Your task to perform on an android device: choose inbox layout in the gmail app Image 0: 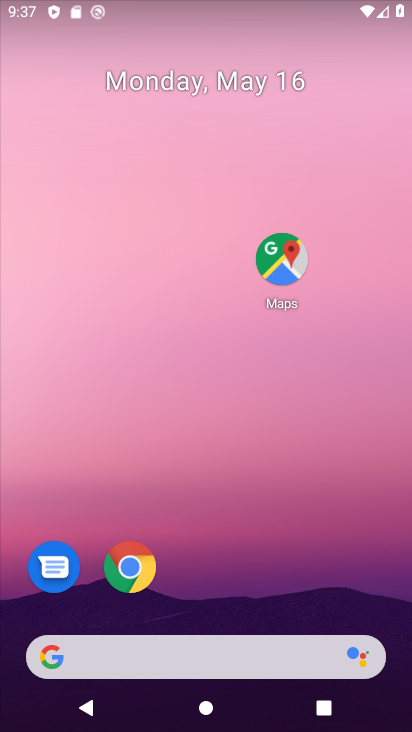
Step 0: drag from (304, 558) to (253, 63)
Your task to perform on an android device: choose inbox layout in the gmail app Image 1: 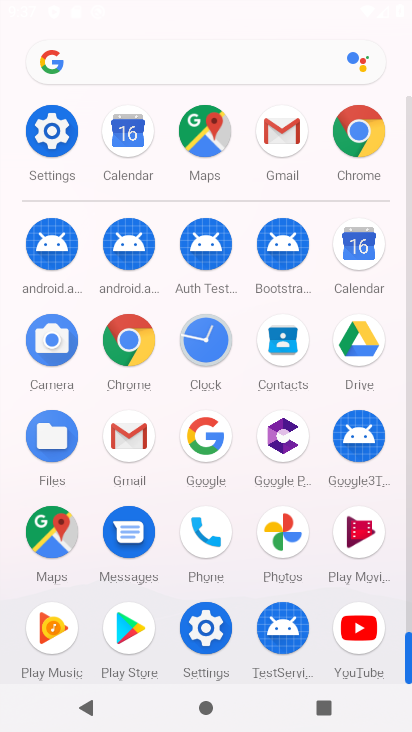
Step 1: click (288, 134)
Your task to perform on an android device: choose inbox layout in the gmail app Image 2: 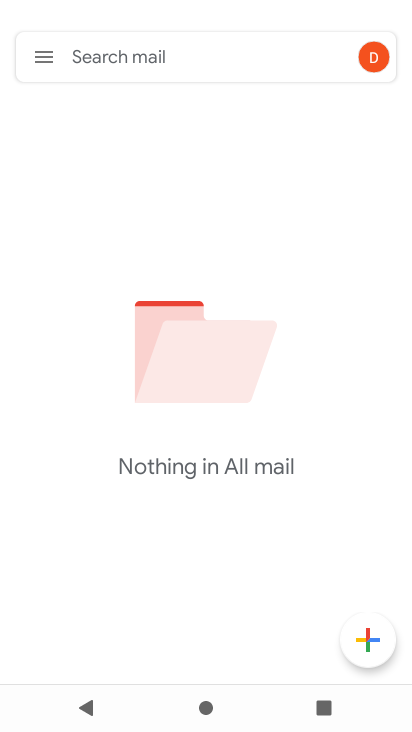
Step 2: click (40, 52)
Your task to perform on an android device: choose inbox layout in the gmail app Image 3: 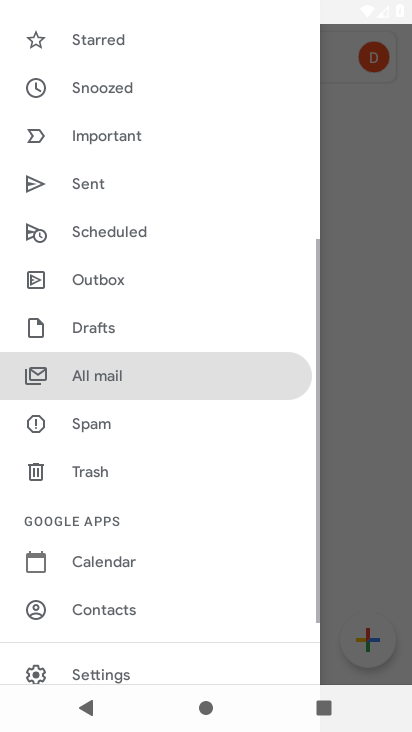
Step 3: click (90, 667)
Your task to perform on an android device: choose inbox layout in the gmail app Image 4: 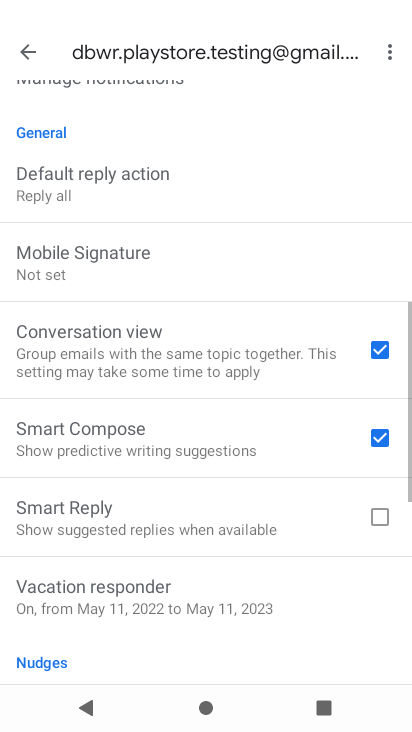
Step 4: drag from (89, 263) to (175, 605)
Your task to perform on an android device: choose inbox layout in the gmail app Image 5: 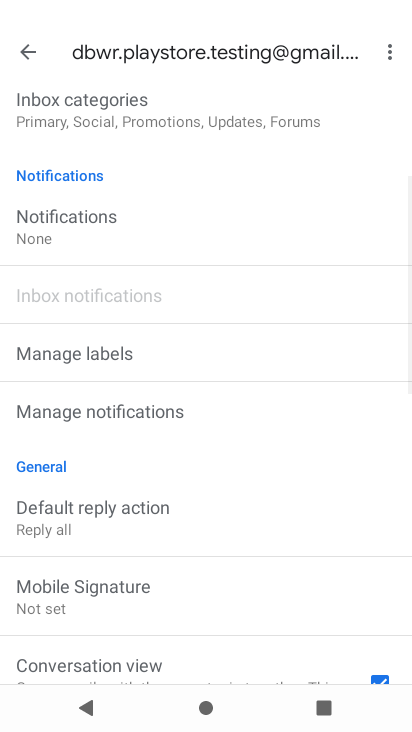
Step 5: drag from (144, 194) to (166, 518)
Your task to perform on an android device: choose inbox layout in the gmail app Image 6: 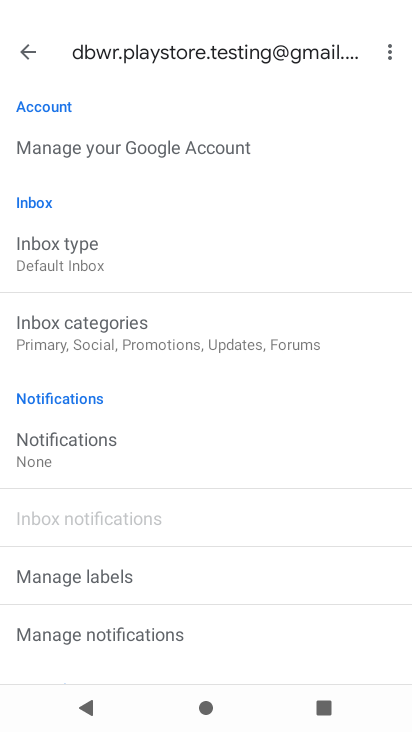
Step 6: click (97, 253)
Your task to perform on an android device: choose inbox layout in the gmail app Image 7: 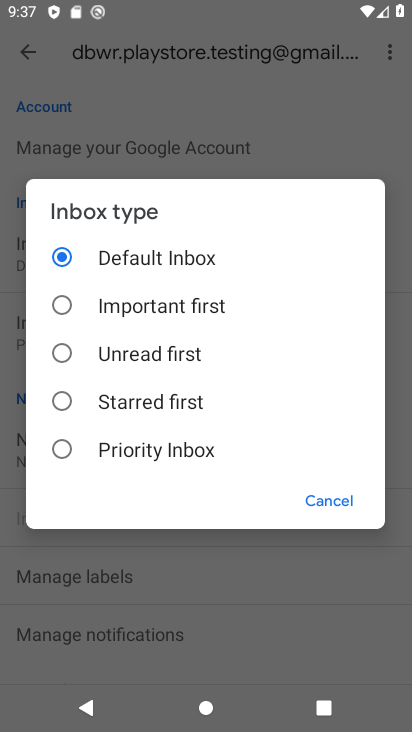
Step 7: click (56, 306)
Your task to perform on an android device: choose inbox layout in the gmail app Image 8: 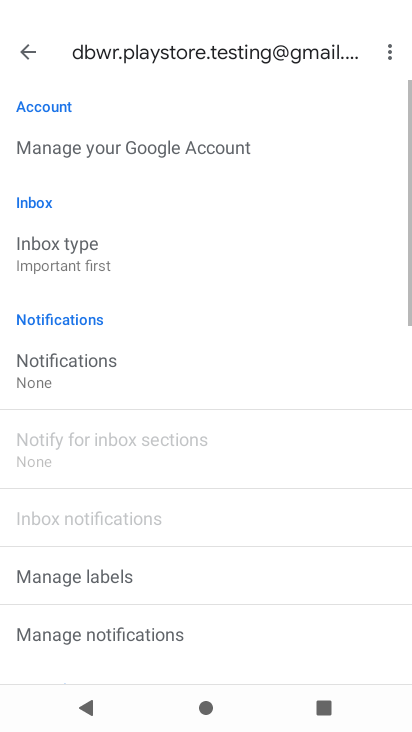
Step 8: task complete